Your task to perform on an android device: Open calendar and show me the fourth week of next month Image 0: 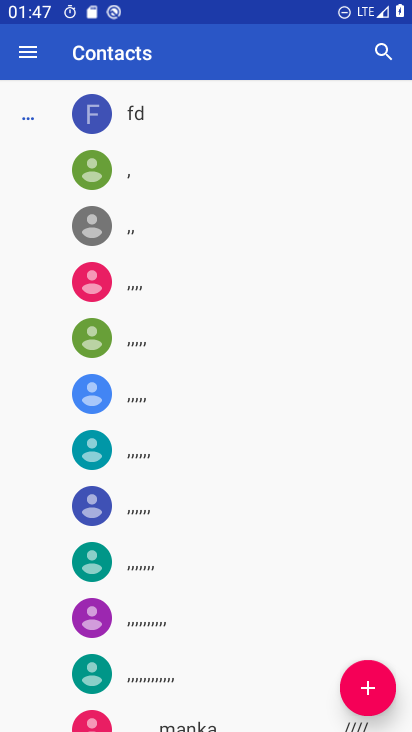
Step 0: press home button
Your task to perform on an android device: Open calendar and show me the fourth week of next month Image 1: 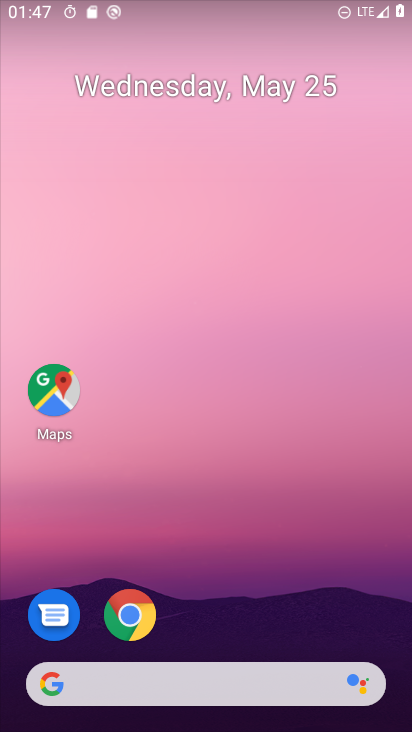
Step 1: drag from (274, 645) to (317, 78)
Your task to perform on an android device: Open calendar and show me the fourth week of next month Image 2: 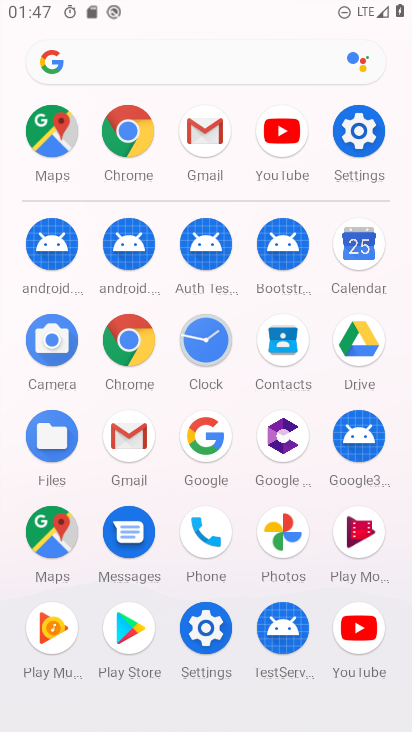
Step 2: click (353, 253)
Your task to perform on an android device: Open calendar and show me the fourth week of next month Image 3: 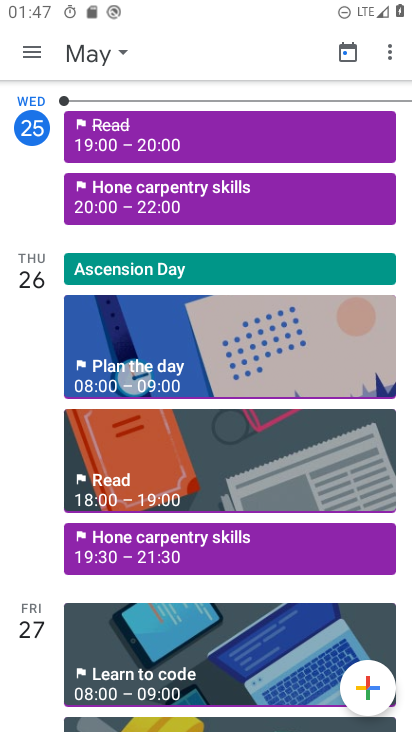
Step 3: click (22, 53)
Your task to perform on an android device: Open calendar and show me the fourth week of next month Image 4: 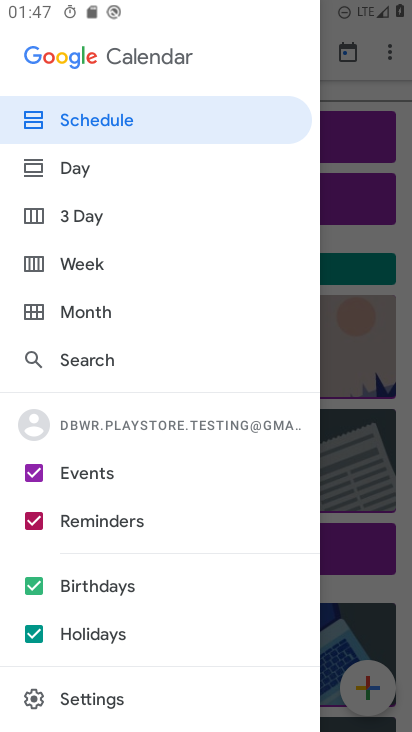
Step 4: click (104, 312)
Your task to perform on an android device: Open calendar and show me the fourth week of next month Image 5: 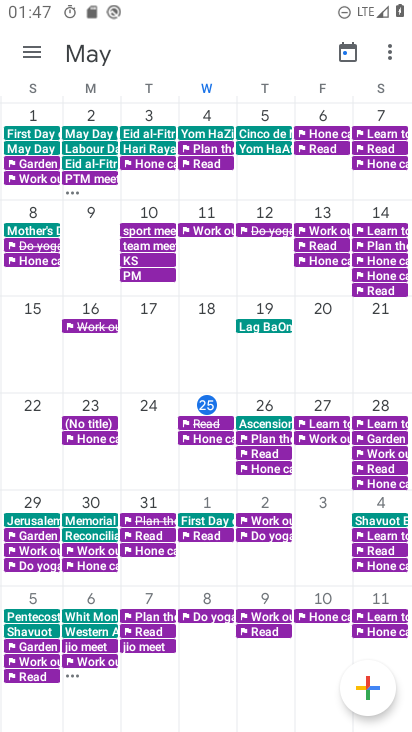
Step 5: drag from (364, 355) to (1, 460)
Your task to perform on an android device: Open calendar and show me the fourth week of next month Image 6: 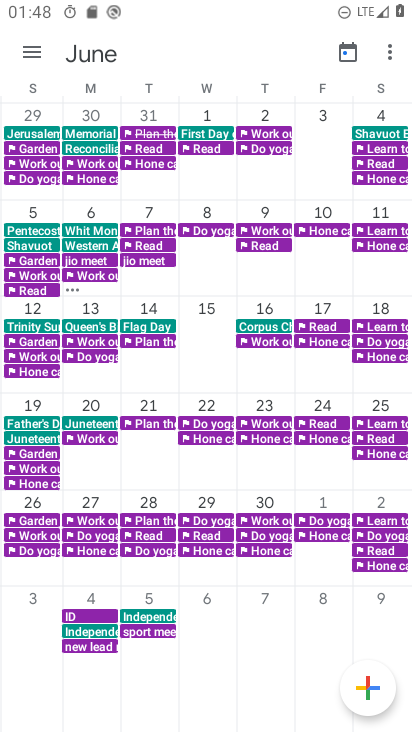
Step 6: click (82, 489)
Your task to perform on an android device: Open calendar and show me the fourth week of next month Image 7: 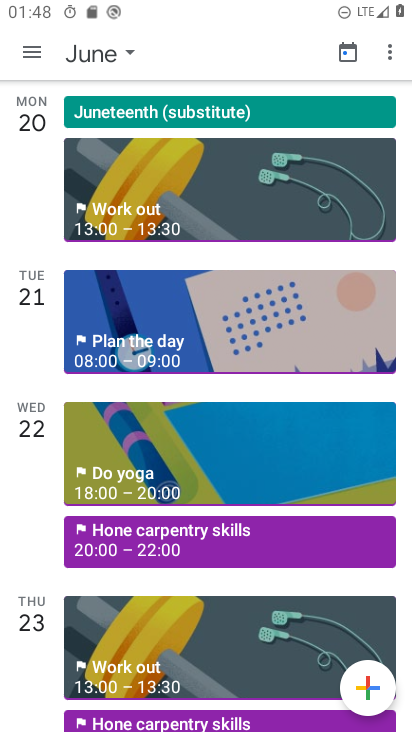
Step 7: task complete